Your task to perform on an android device: What's the weather? Image 0: 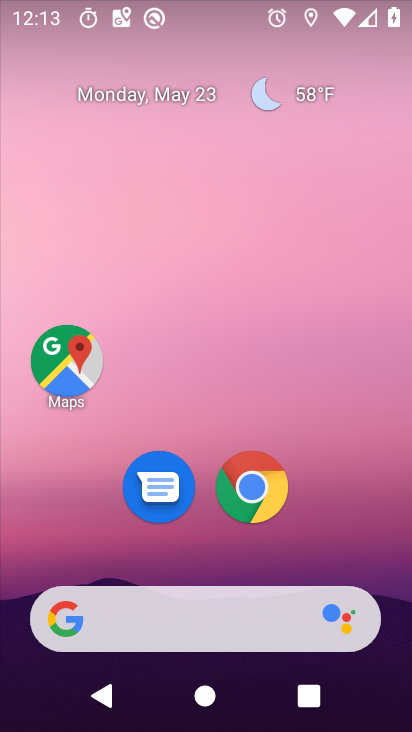
Step 0: drag from (379, 514) to (363, 137)
Your task to perform on an android device: What's the weather? Image 1: 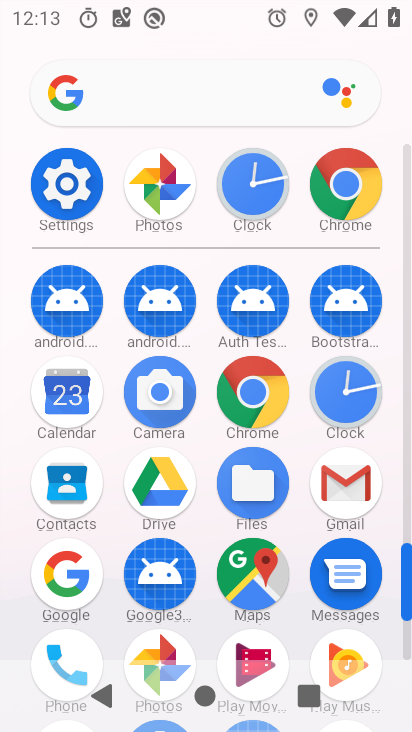
Step 1: click (256, 409)
Your task to perform on an android device: What's the weather? Image 2: 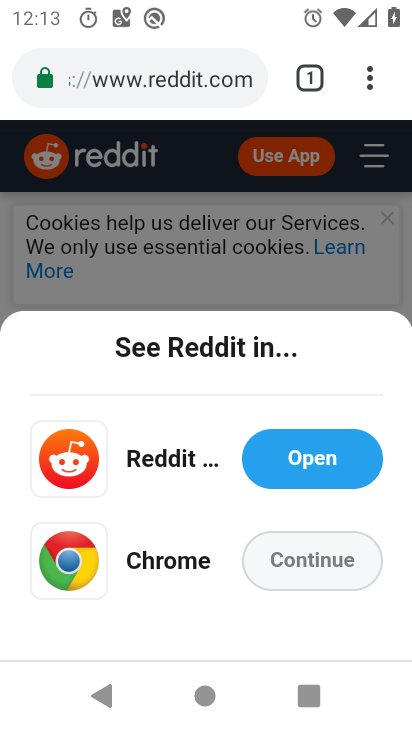
Step 2: click (136, 87)
Your task to perform on an android device: What's the weather? Image 3: 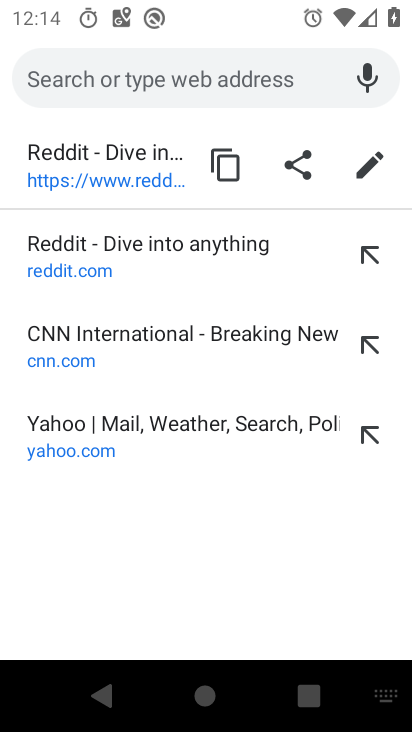
Step 3: type "what's the weather"
Your task to perform on an android device: What's the weather? Image 4: 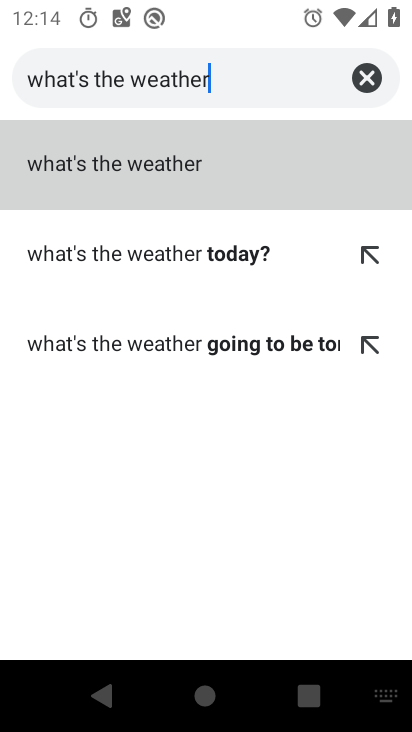
Step 4: click (197, 180)
Your task to perform on an android device: What's the weather? Image 5: 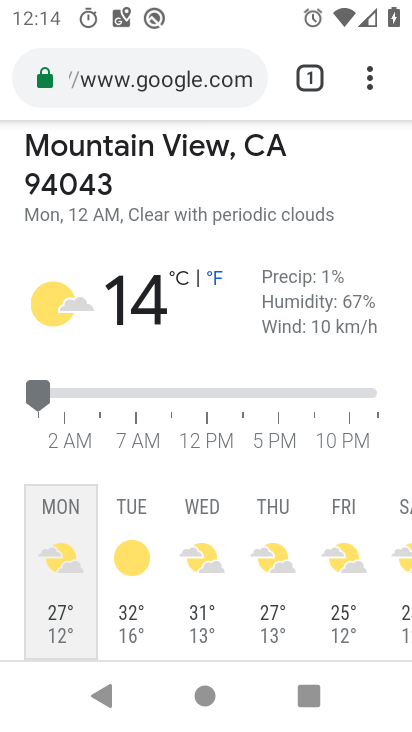
Step 5: task complete